Your task to perform on an android device: add a contact Image 0: 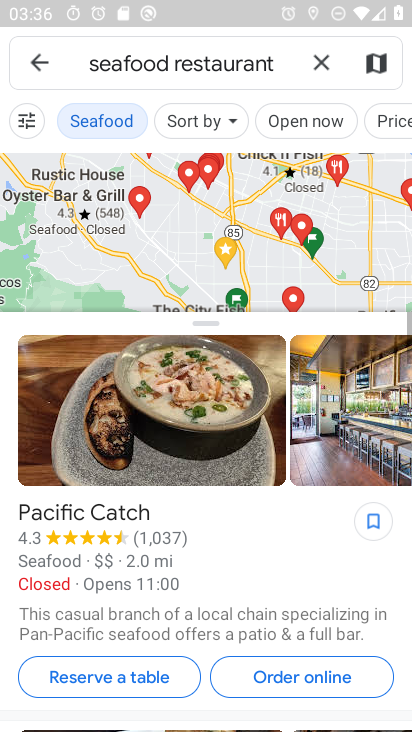
Step 0: drag from (254, 678) to (230, 112)
Your task to perform on an android device: add a contact Image 1: 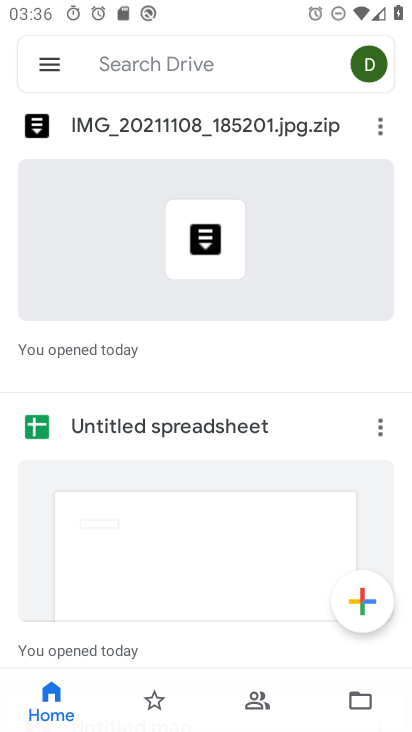
Step 1: press back button
Your task to perform on an android device: add a contact Image 2: 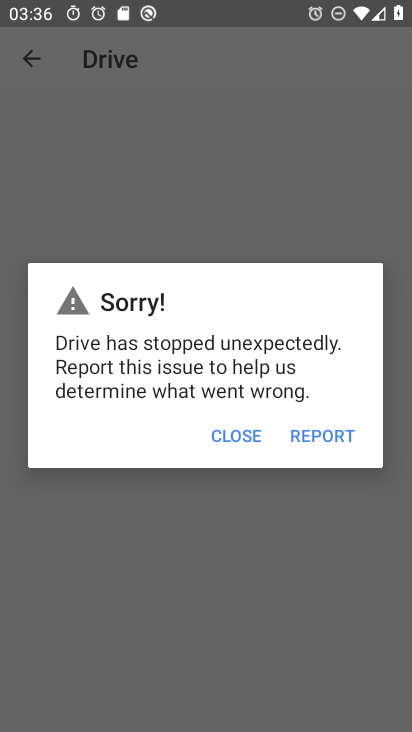
Step 2: press back button
Your task to perform on an android device: add a contact Image 3: 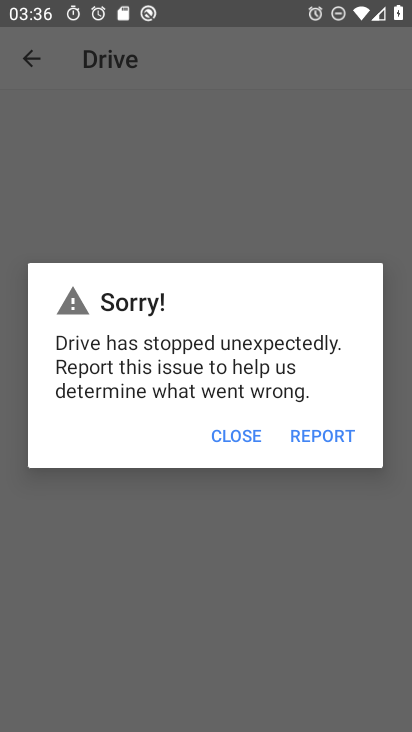
Step 3: press back button
Your task to perform on an android device: add a contact Image 4: 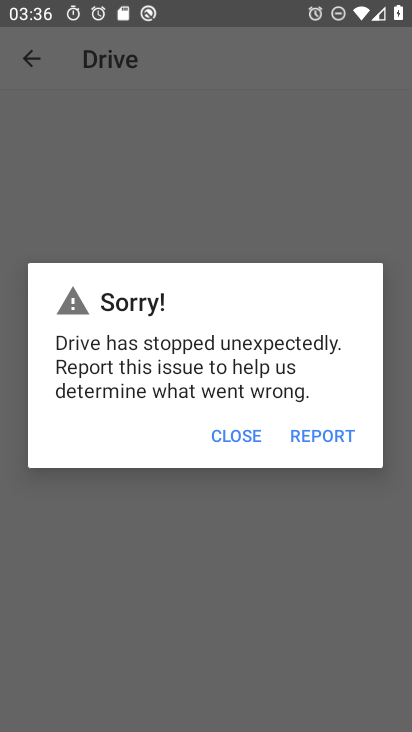
Step 4: press home button
Your task to perform on an android device: add a contact Image 5: 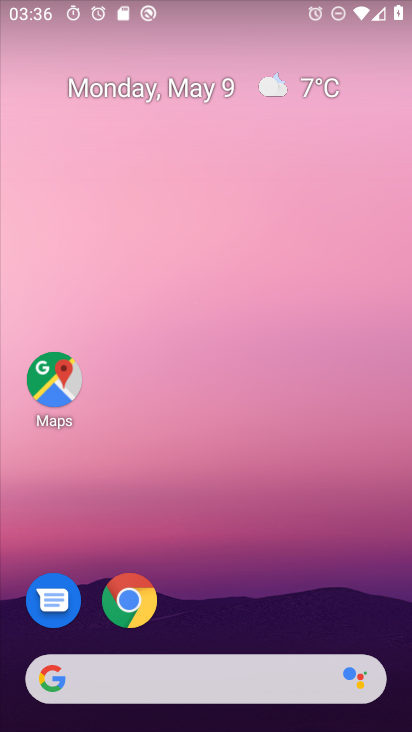
Step 5: drag from (204, 688) to (202, 140)
Your task to perform on an android device: add a contact Image 6: 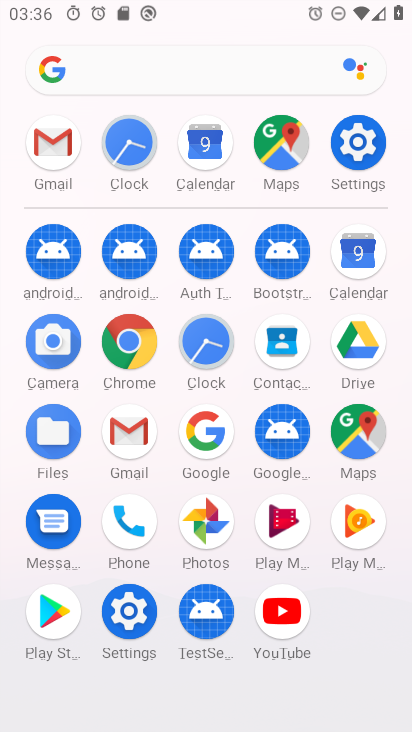
Step 6: click (281, 336)
Your task to perform on an android device: add a contact Image 7: 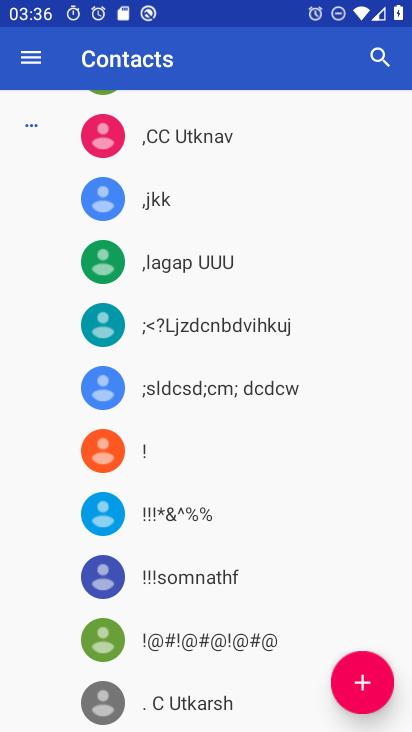
Step 7: click (352, 678)
Your task to perform on an android device: add a contact Image 8: 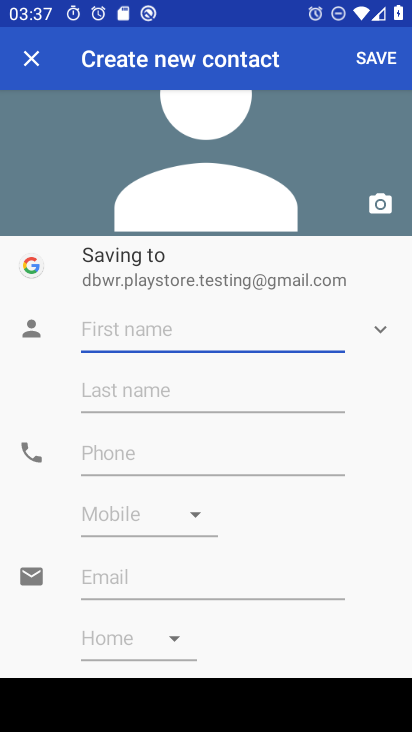
Step 8: type "nxvbcbx"
Your task to perform on an android device: add a contact Image 9: 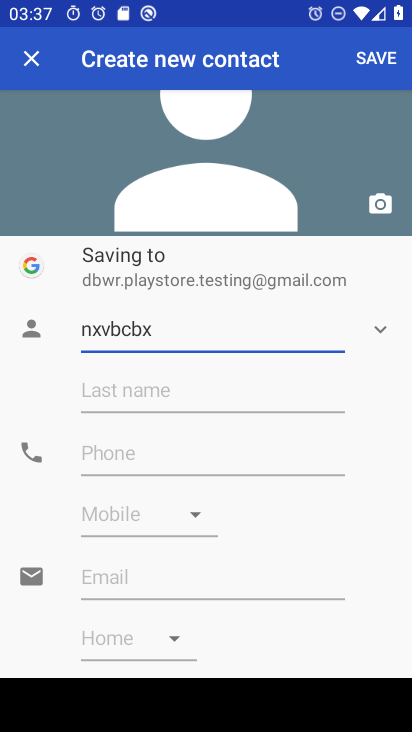
Step 9: click (296, 432)
Your task to perform on an android device: add a contact Image 10: 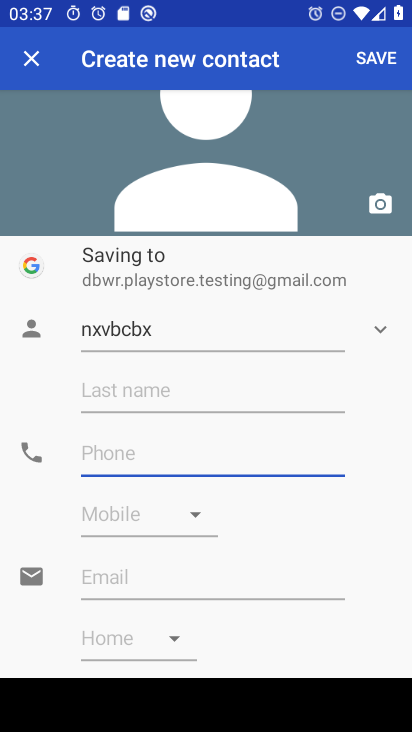
Step 10: type "3138718"
Your task to perform on an android device: add a contact Image 11: 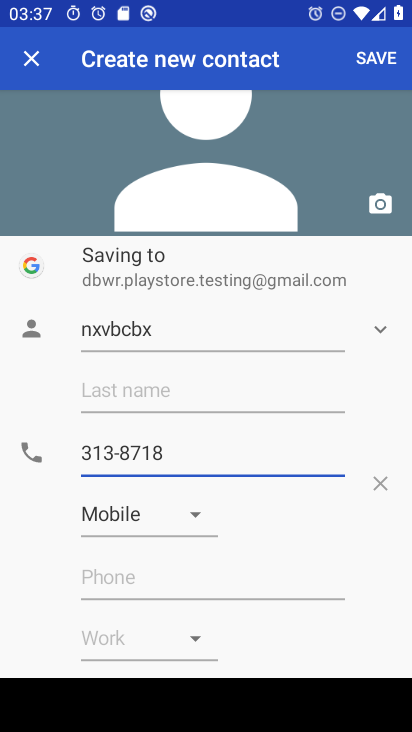
Step 11: task complete